Your task to perform on an android device: allow notifications from all sites in the chrome app Image 0: 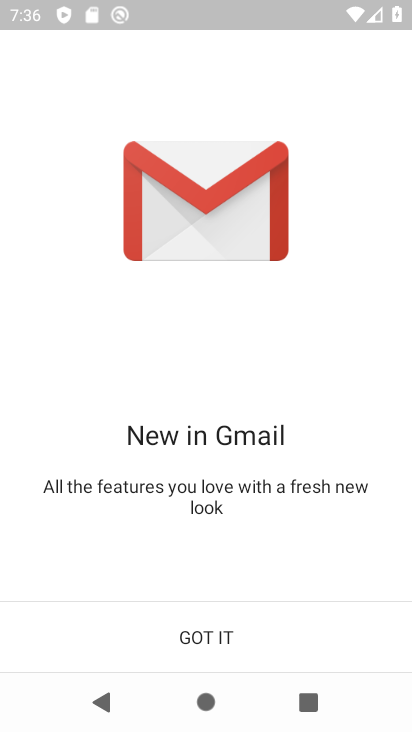
Step 0: click (228, 622)
Your task to perform on an android device: allow notifications from all sites in the chrome app Image 1: 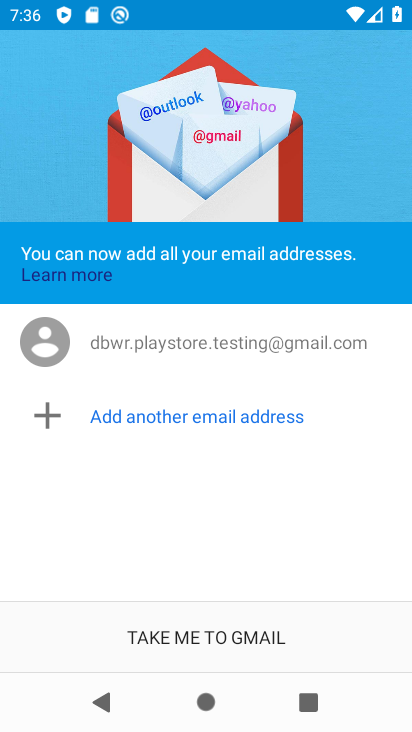
Step 1: click (231, 638)
Your task to perform on an android device: allow notifications from all sites in the chrome app Image 2: 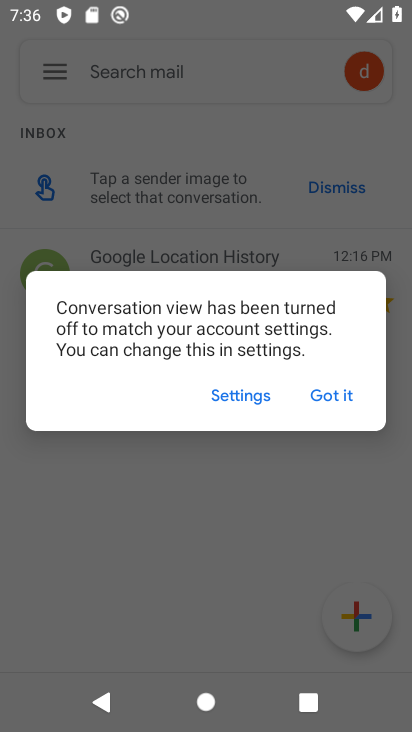
Step 2: click (322, 406)
Your task to perform on an android device: allow notifications from all sites in the chrome app Image 3: 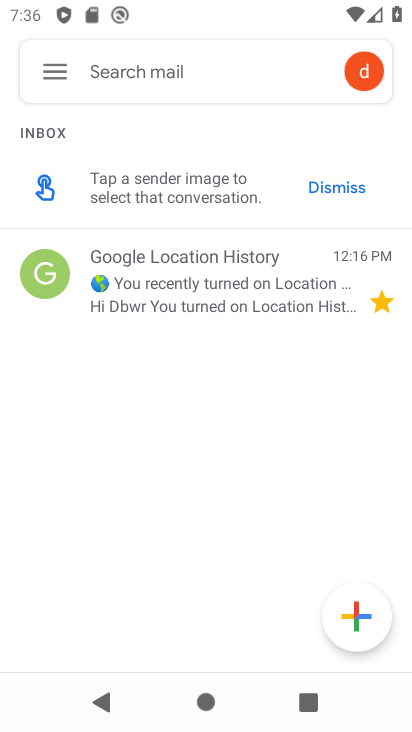
Step 3: press home button
Your task to perform on an android device: allow notifications from all sites in the chrome app Image 4: 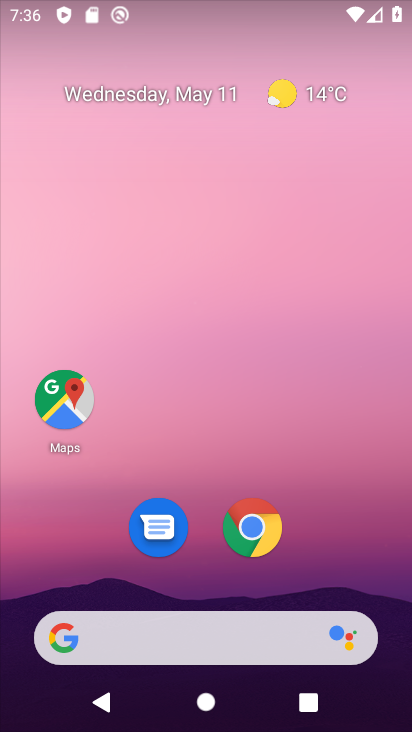
Step 4: click (259, 547)
Your task to perform on an android device: allow notifications from all sites in the chrome app Image 5: 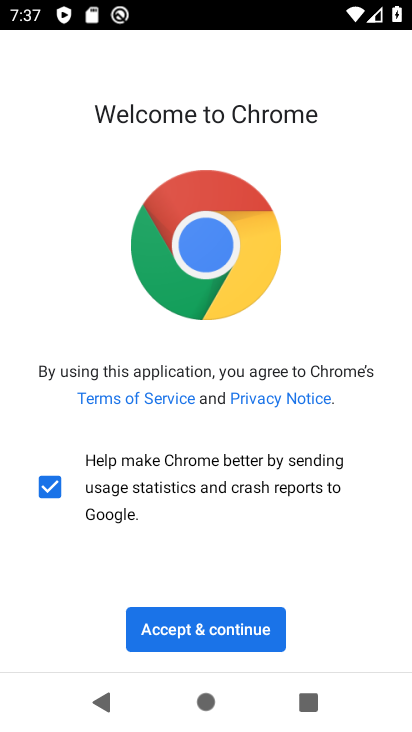
Step 5: click (206, 623)
Your task to perform on an android device: allow notifications from all sites in the chrome app Image 6: 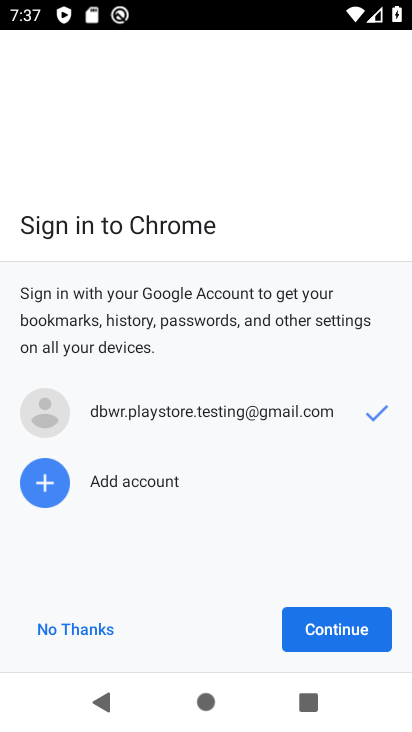
Step 6: click (318, 633)
Your task to perform on an android device: allow notifications from all sites in the chrome app Image 7: 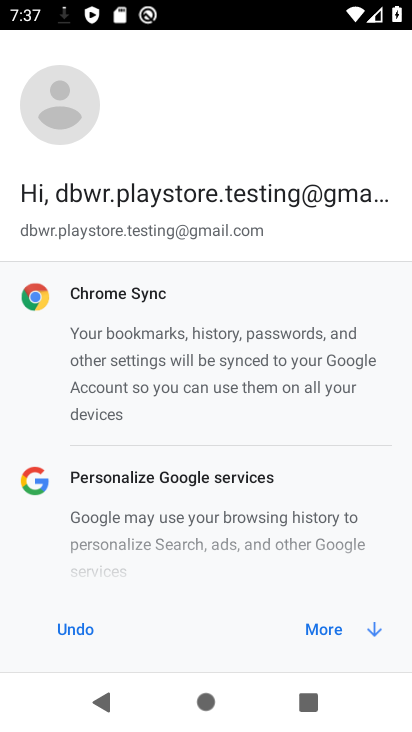
Step 7: click (316, 634)
Your task to perform on an android device: allow notifications from all sites in the chrome app Image 8: 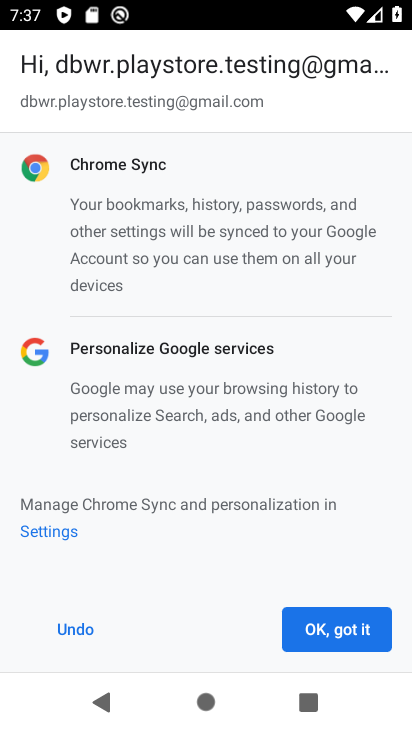
Step 8: click (316, 634)
Your task to perform on an android device: allow notifications from all sites in the chrome app Image 9: 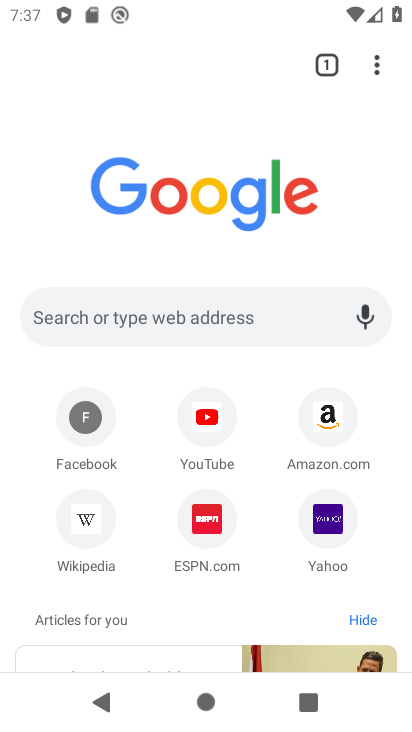
Step 9: click (382, 59)
Your task to perform on an android device: allow notifications from all sites in the chrome app Image 10: 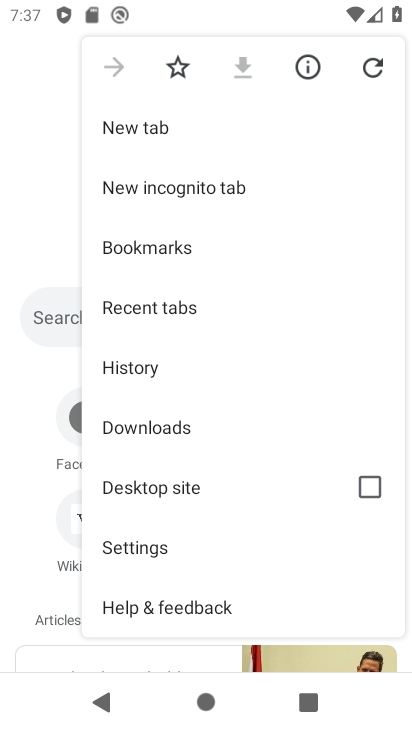
Step 10: click (160, 550)
Your task to perform on an android device: allow notifications from all sites in the chrome app Image 11: 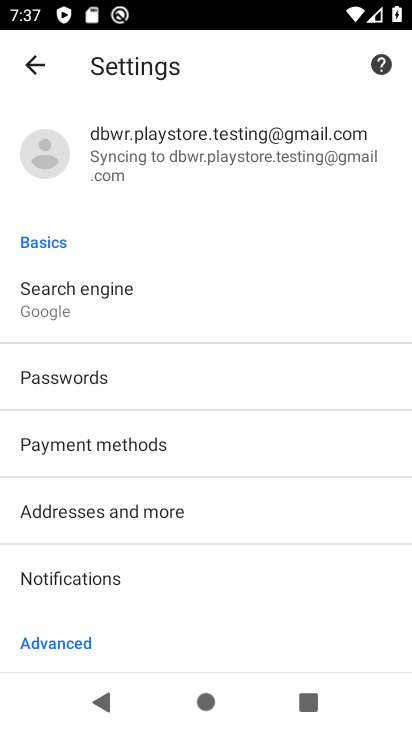
Step 11: drag from (163, 530) to (176, 223)
Your task to perform on an android device: allow notifications from all sites in the chrome app Image 12: 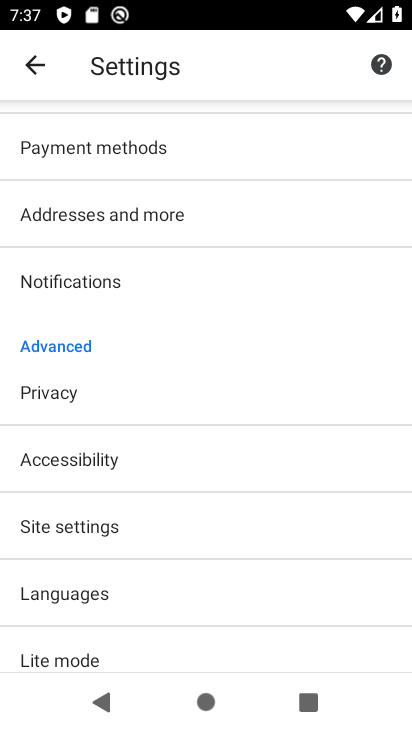
Step 12: click (99, 281)
Your task to perform on an android device: allow notifications from all sites in the chrome app Image 13: 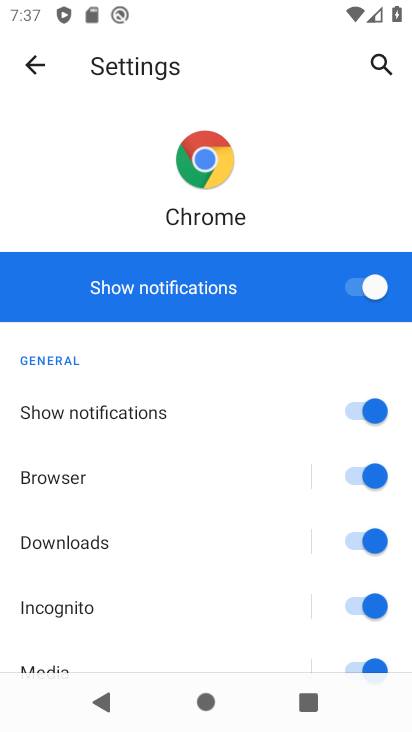
Step 13: task complete